Your task to perform on an android device: toggle pop-ups in chrome Image 0: 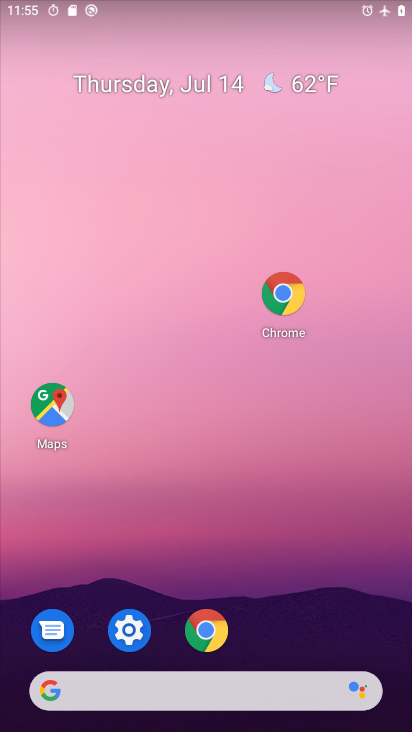
Step 0: drag from (182, 223) to (177, 182)
Your task to perform on an android device: toggle pop-ups in chrome Image 1: 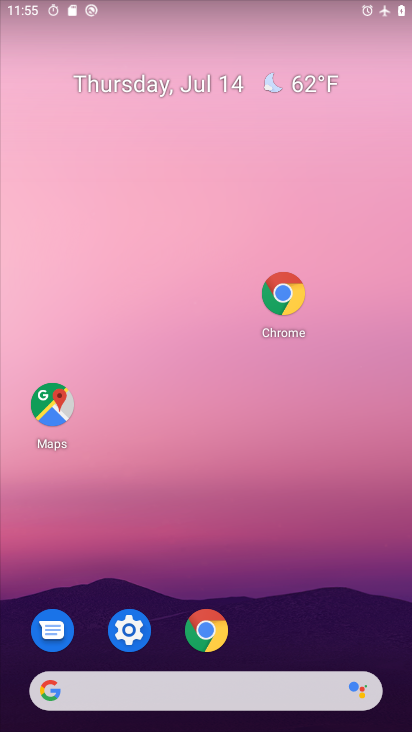
Step 1: drag from (289, 287) to (289, 84)
Your task to perform on an android device: toggle pop-ups in chrome Image 2: 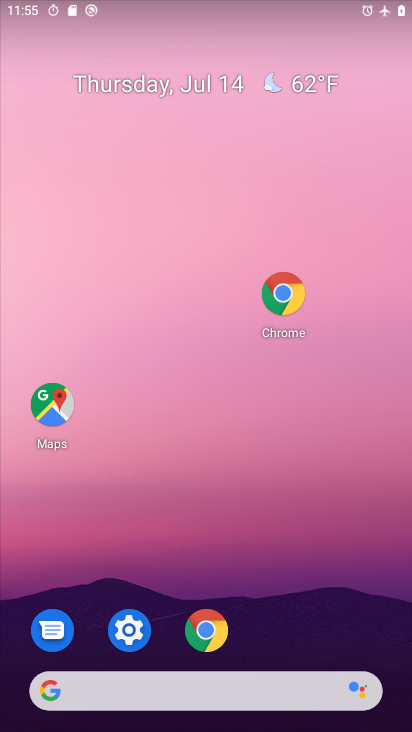
Step 2: drag from (227, 581) to (268, 29)
Your task to perform on an android device: toggle pop-ups in chrome Image 3: 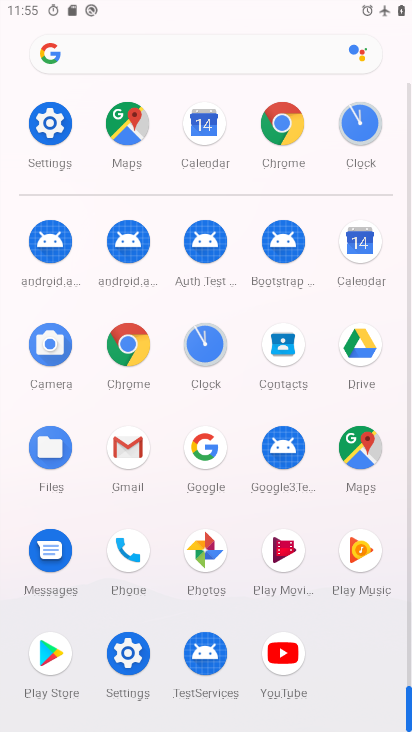
Step 3: click (286, 135)
Your task to perform on an android device: toggle pop-ups in chrome Image 4: 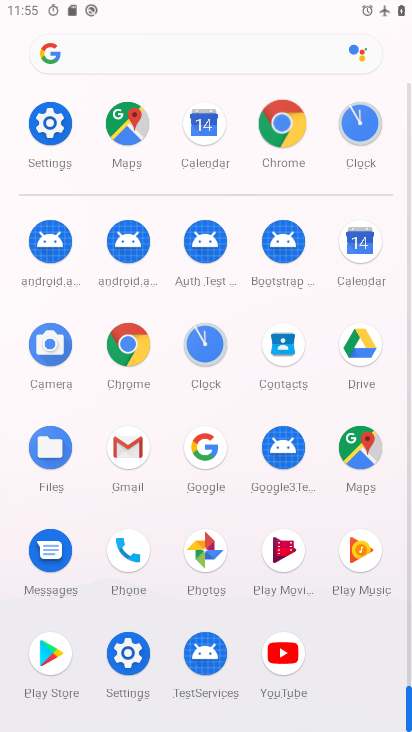
Step 4: click (282, 125)
Your task to perform on an android device: toggle pop-ups in chrome Image 5: 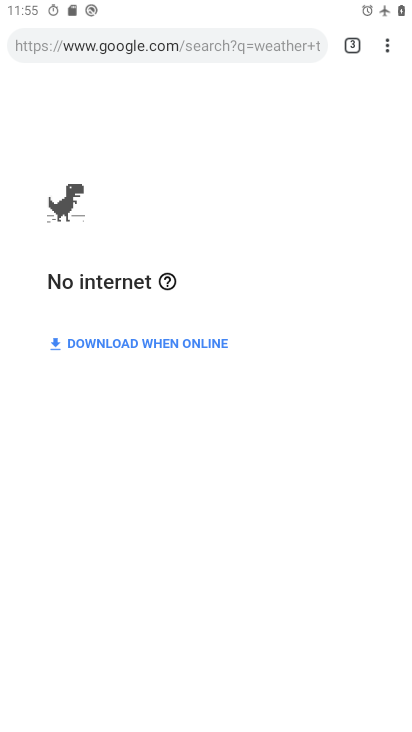
Step 5: drag from (379, 44) to (214, 541)
Your task to perform on an android device: toggle pop-ups in chrome Image 6: 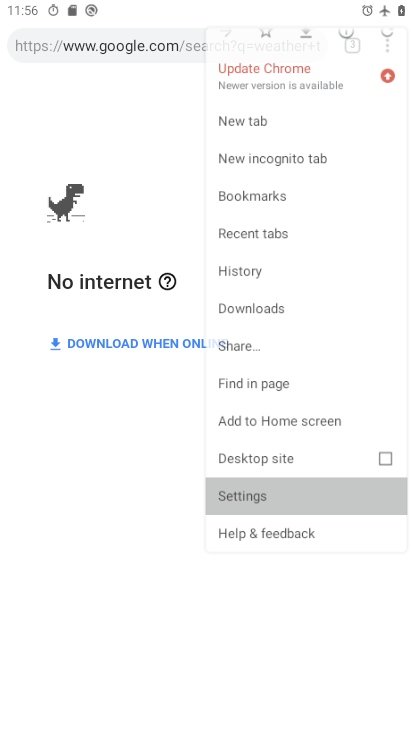
Step 6: click (214, 541)
Your task to perform on an android device: toggle pop-ups in chrome Image 7: 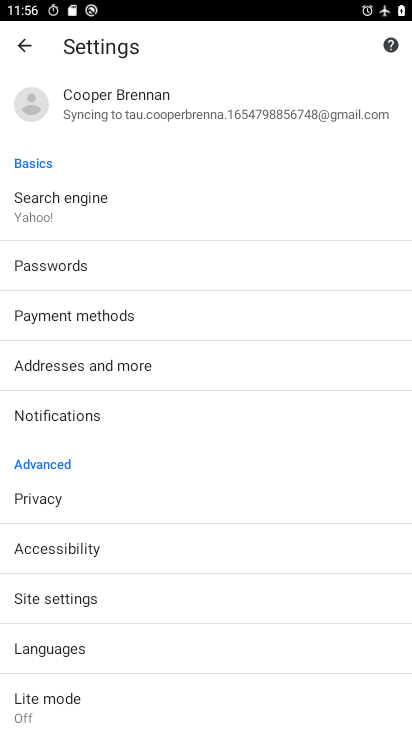
Step 7: drag from (107, 627) to (103, 162)
Your task to perform on an android device: toggle pop-ups in chrome Image 8: 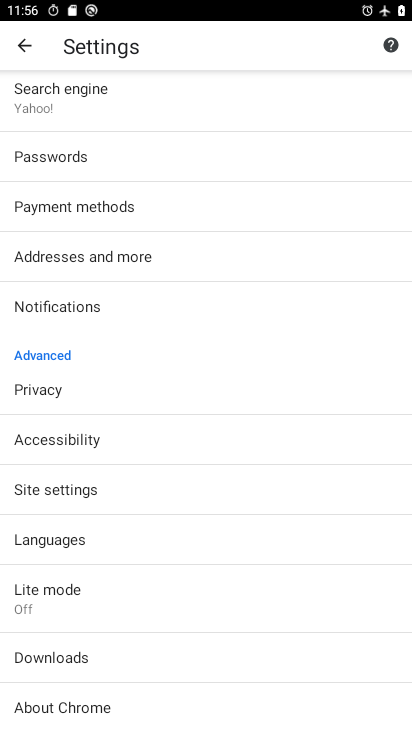
Step 8: click (43, 491)
Your task to perform on an android device: toggle pop-ups in chrome Image 9: 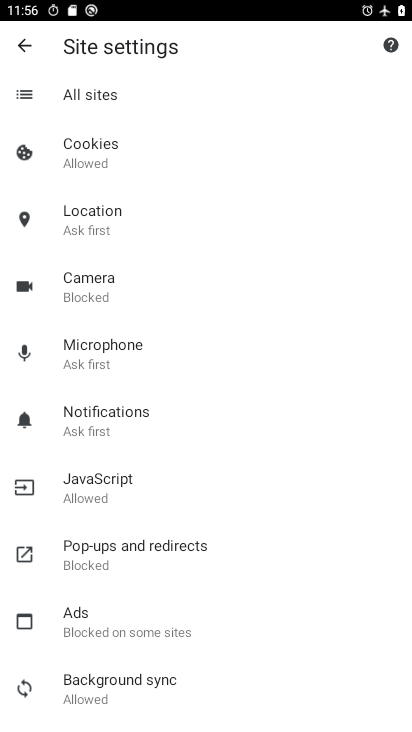
Step 9: click (115, 543)
Your task to perform on an android device: toggle pop-ups in chrome Image 10: 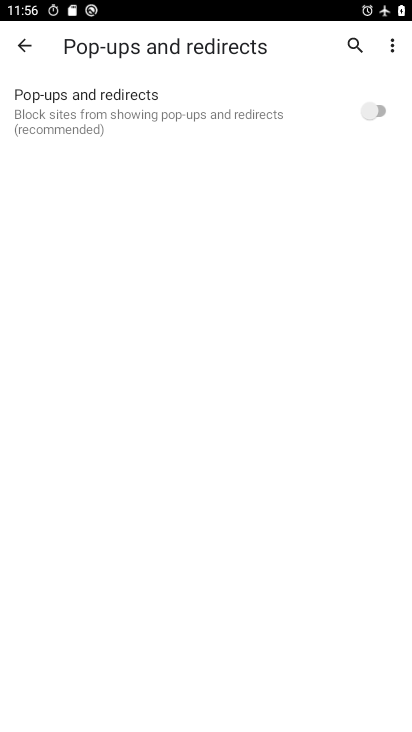
Step 10: click (371, 114)
Your task to perform on an android device: toggle pop-ups in chrome Image 11: 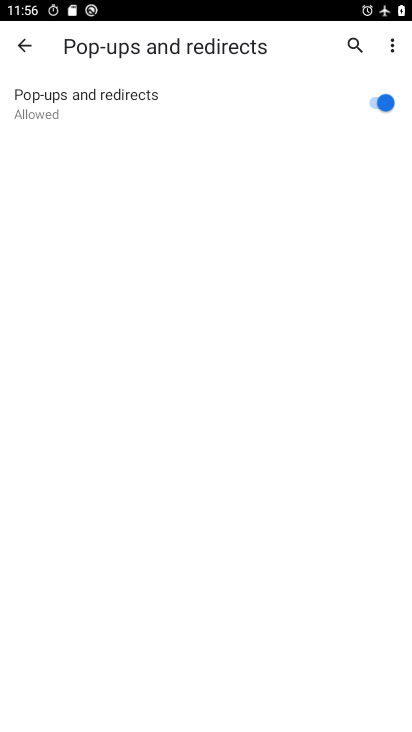
Step 11: task complete